Your task to perform on an android device: install app "Adobe Express: Graphic Design" Image 0: 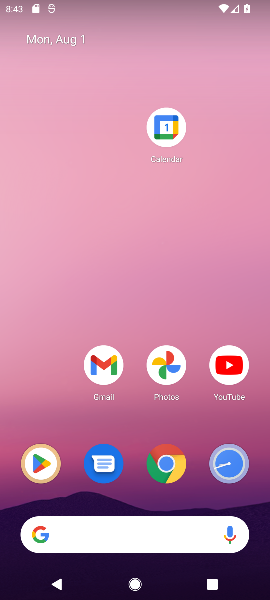
Step 0: drag from (75, 494) to (69, 59)
Your task to perform on an android device: install app "Adobe Express: Graphic Design" Image 1: 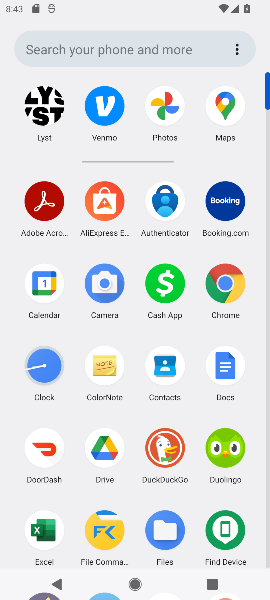
Step 1: click (42, 183)
Your task to perform on an android device: install app "Adobe Express: Graphic Design" Image 2: 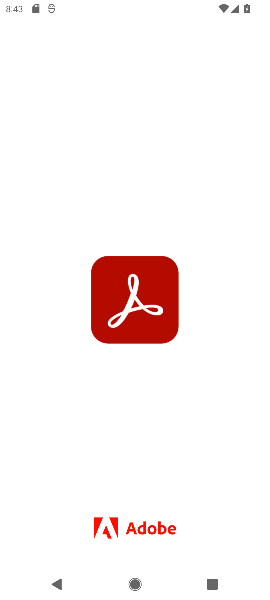
Step 2: task complete